Your task to perform on an android device: Search for seafood restaurants on Google Maps Image 0: 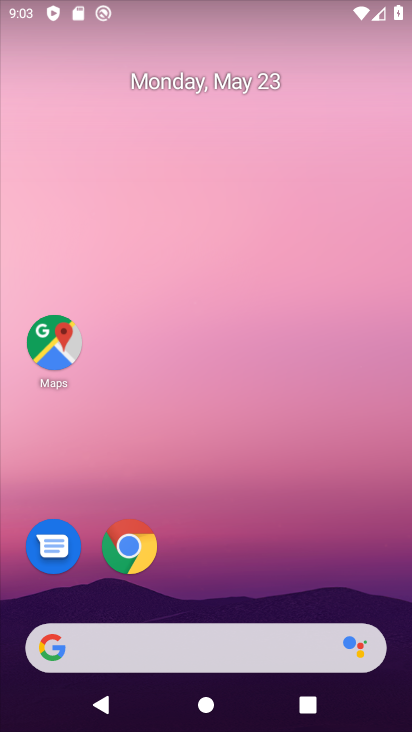
Step 0: click (191, 209)
Your task to perform on an android device: Search for seafood restaurants on Google Maps Image 1: 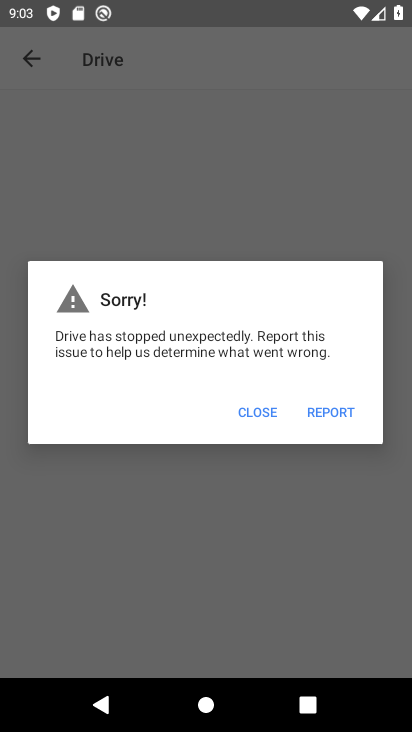
Step 1: press home button
Your task to perform on an android device: Search for seafood restaurants on Google Maps Image 2: 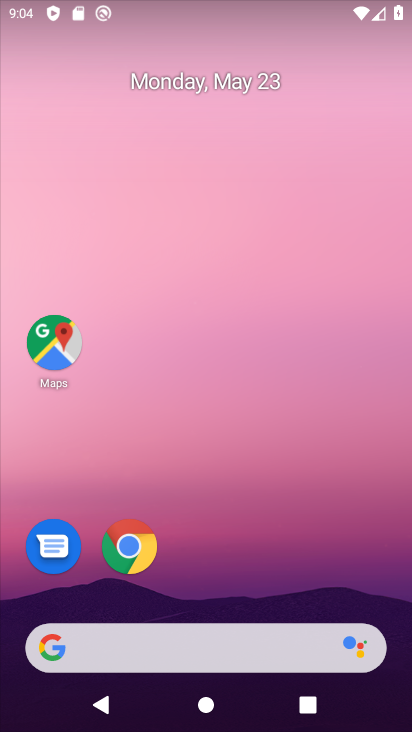
Step 2: click (37, 354)
Your task to perform on an android device: Search for seafood restaurants on Google Maps Image 3: 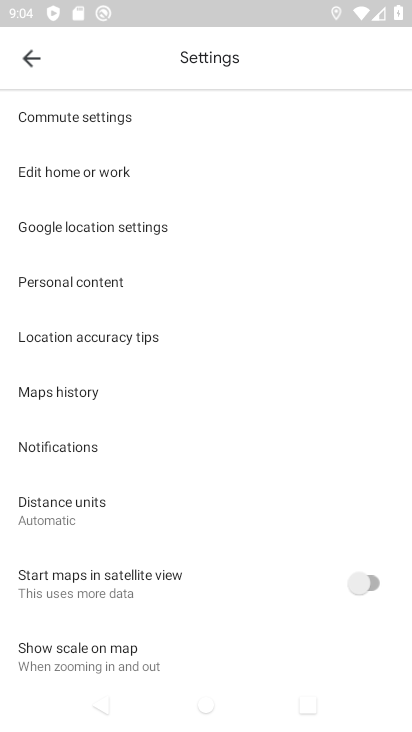
Step 3: click (36, 57)
Your task to perform on an android device: Search for seafood restaurants on Google Maps Image 4: 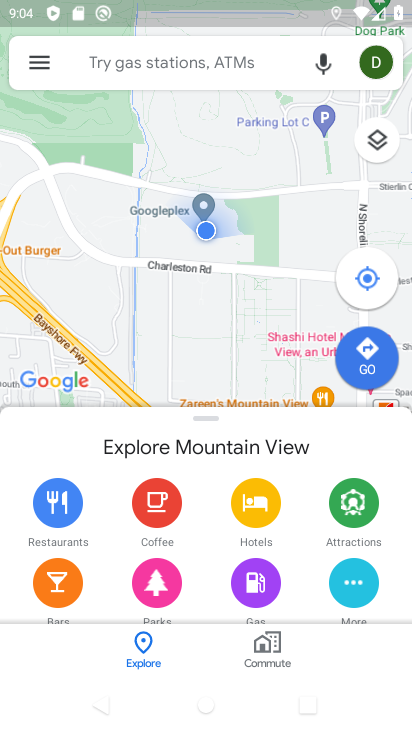
Step 4: click (118, 72)
Your task to perform on an android device: Search for seafood restaurants on Google Maps Image 5: 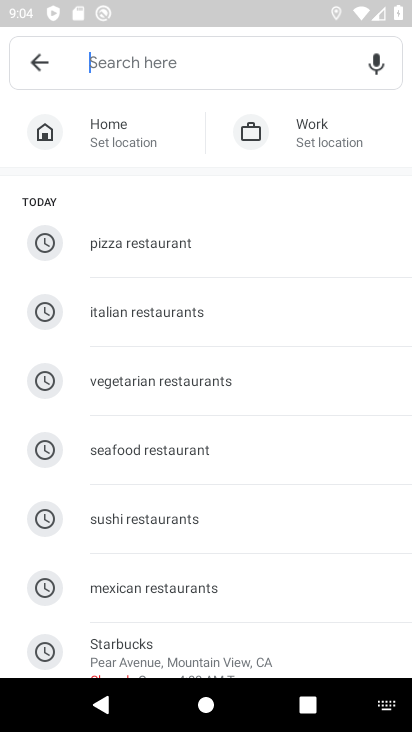
Step 5: type "seafood restaurants"
Your task to perform on an android device: Search for seafood restaurants on Google Maps Image 6: 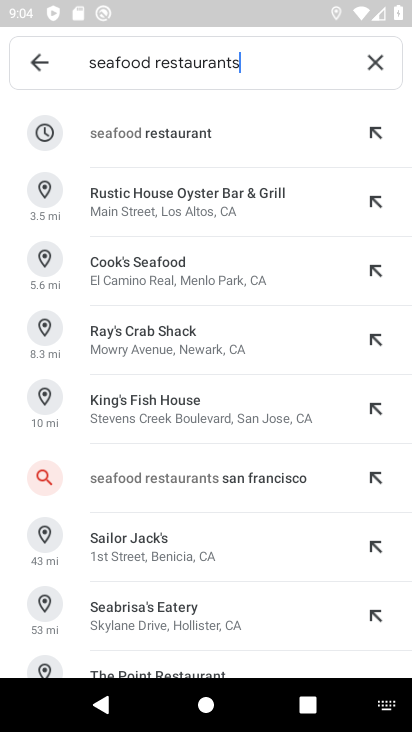
Step 6: press enter
Your task to perform on an android device: Search for seafood restaurants on Google Maps Image 7: 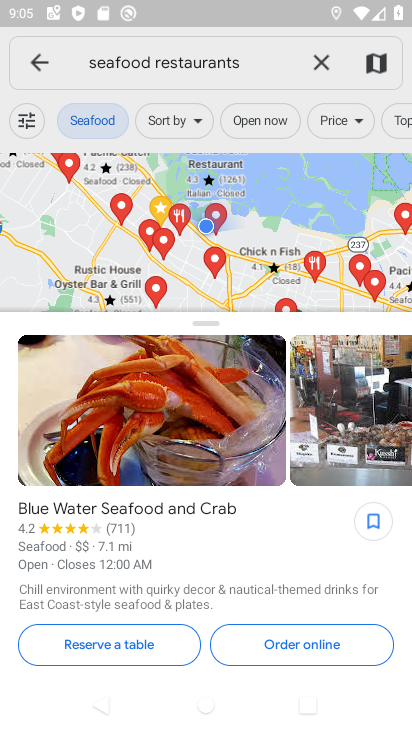
Step 7: task complete